Your task to perform on an android device: Search for Italian restaurants on Maps Image 0: 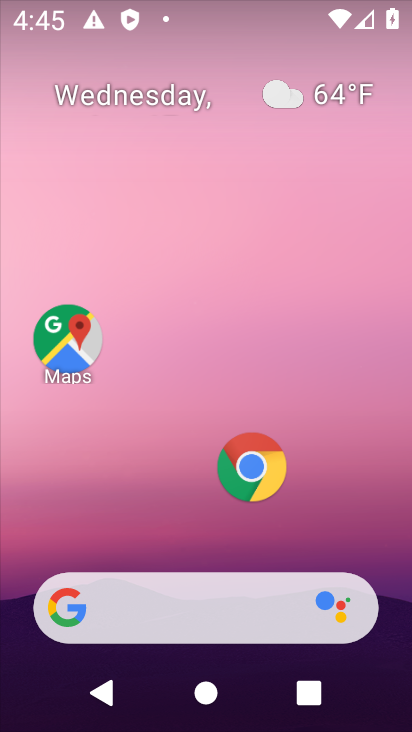
Step 0: click (52, 329)
Your task to perform on an android device: Search for Italian restaurants on Maps Image 1: 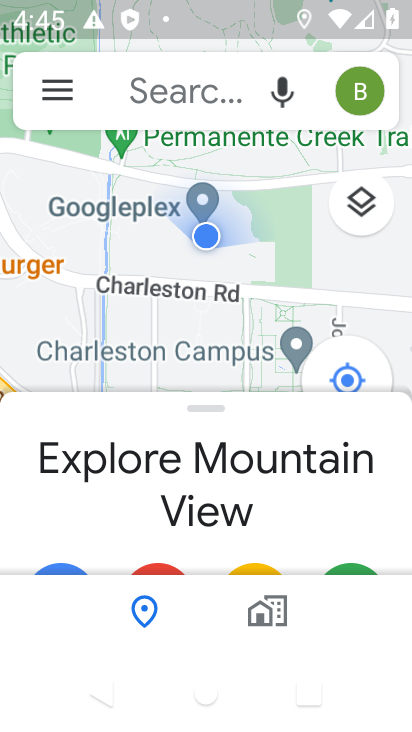
Step 1: task complete